Your task to perform on an android device: Open battery settings Image 0: 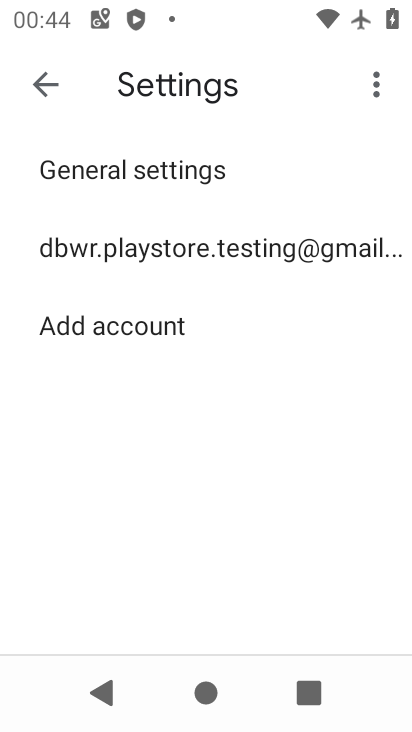
Step 0: drag from (206, 519) to (240, 143)
Your task to perform on an android device: Open battery settings Image 1: 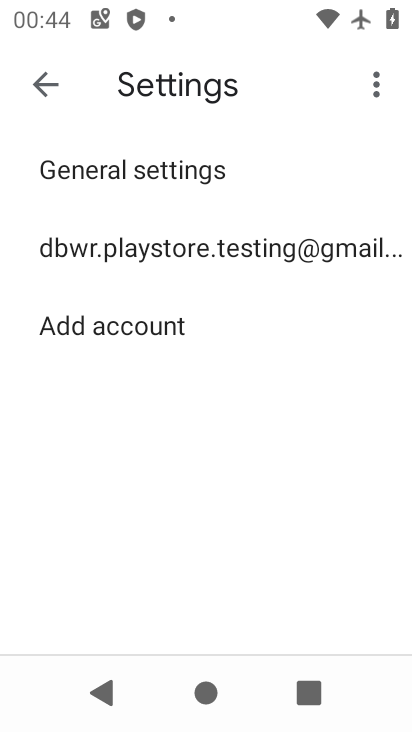
Step 1: drag from (245, 477) to (276, 212)
Your task to perform on an android device: Open battery settings Image 2: 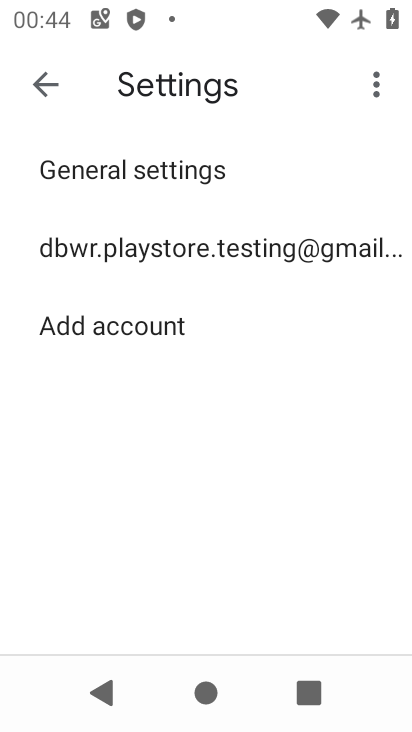
Step 2: click (158, 430)
Your task to perform on an android device: Open battery settings Image 3: 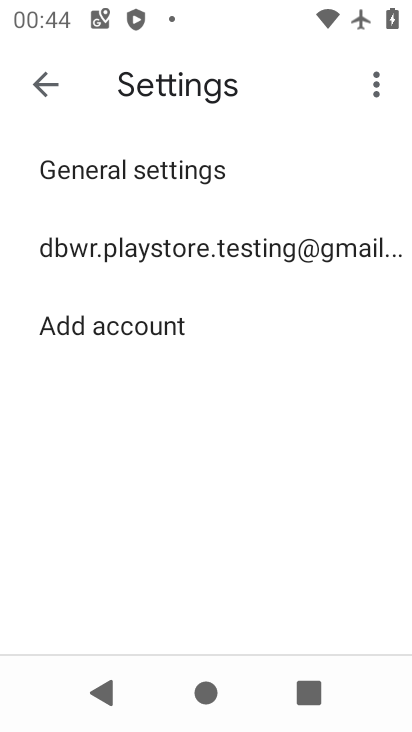
Step 3: click (158, 430)
Your task to perform on an android device: Open battery settings Image 4: 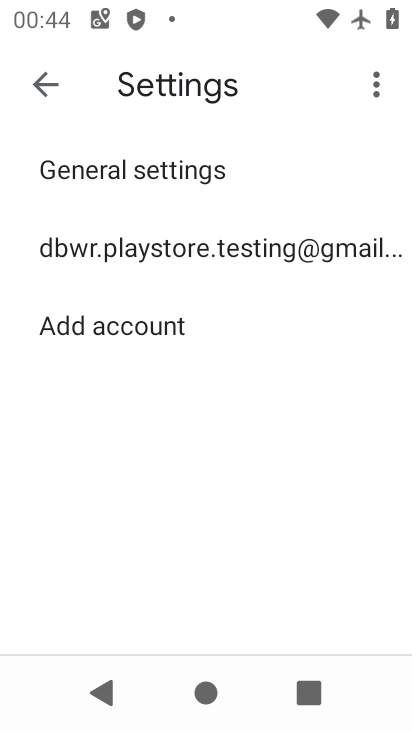
Step 4: press home button
Your task to perform on an android device: Open battery settings Image 5: 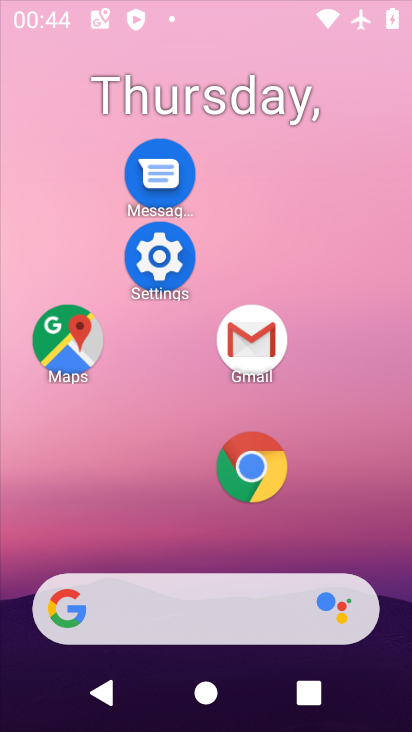
Step 5: drag from (227, 540) to (241, 154)
Your task to perform on an android device: Open battery settings Image 6: 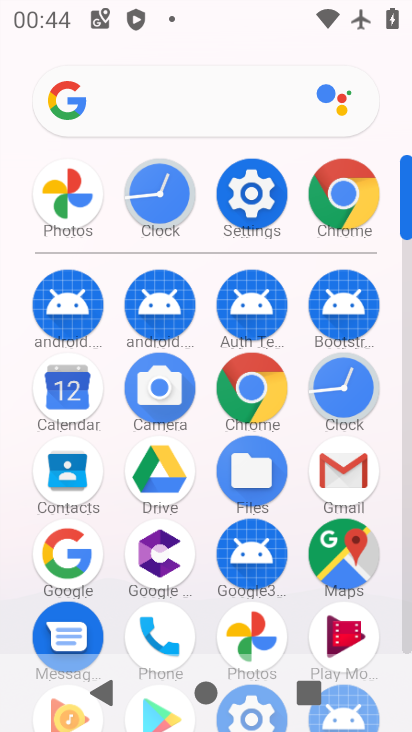
Step 6: drag from (250, 384) to (229, 81)
Your task to perform on an android device: Open battery settings Image 7: 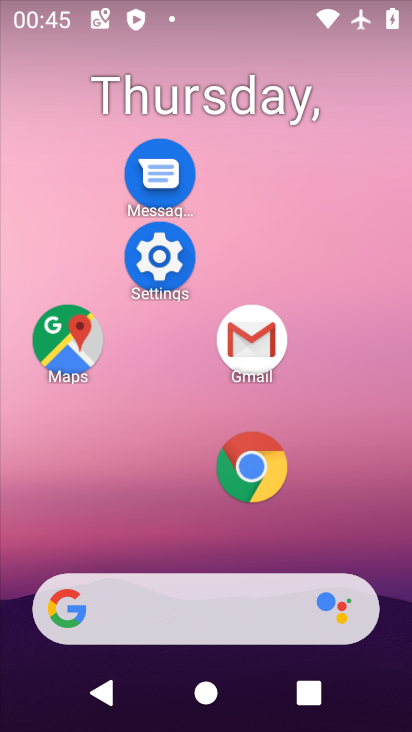
Step 7: drag from (184, 543) to (224, 248)
Your task to perform on an android device: Open battery settings Image 8: 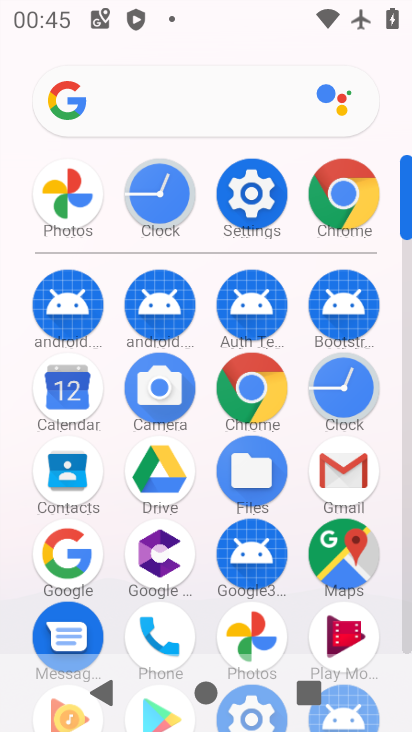
Step 8: click (250, 190)
Your task to perform on an android device: Open battery settings Image 9: 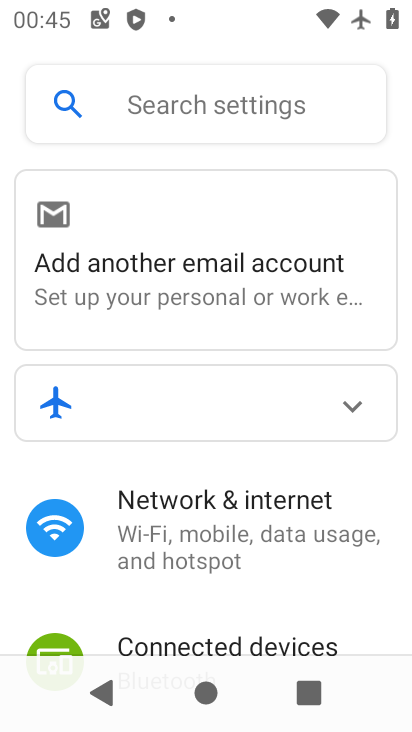
Step 9: drag from (231, 563) to (327, 94)
Your task to perform on an android device: Open battery settings Image 10: 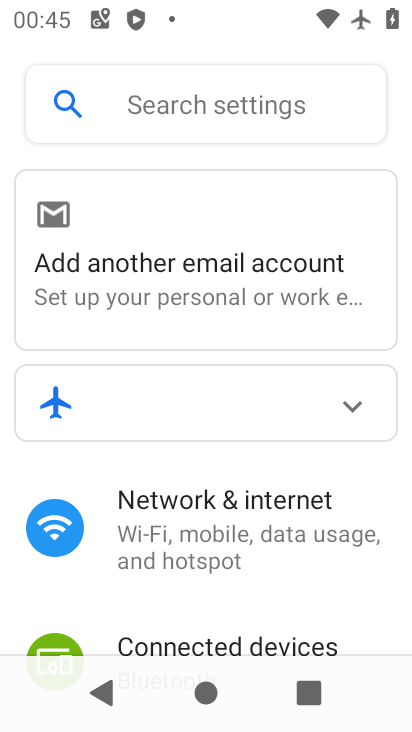
Step 10: click (297, 143)
Your task to perform on an android device: Open battery settings Image 11: 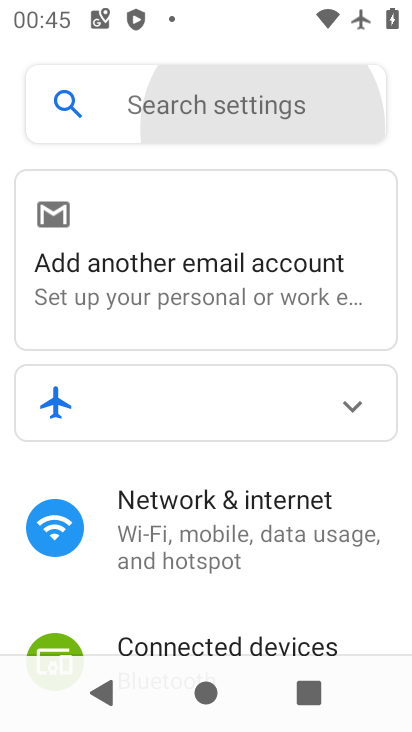
Step 11: drag from (221, 557) to (301, 50)
Your task to perform on an android device: Open battery settings Image 12: 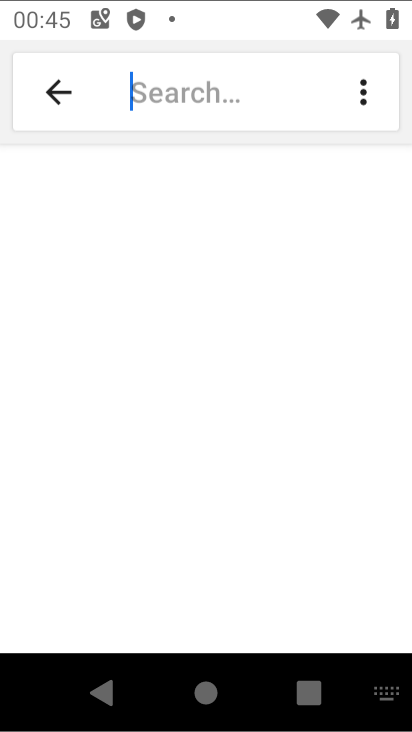
Step 12: drag from (238, 595) to (267, 269)
Your task to perform on an android device: Open battery settings Image 13: 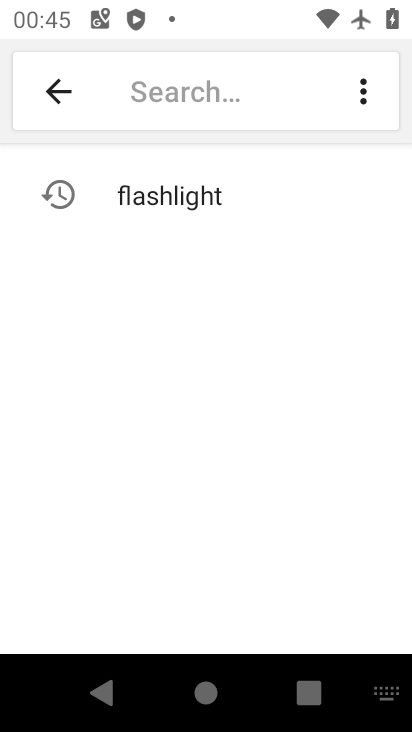
Step 13: click (44, 79)
Your task to perform on an android device: Open battery settings Image 14: 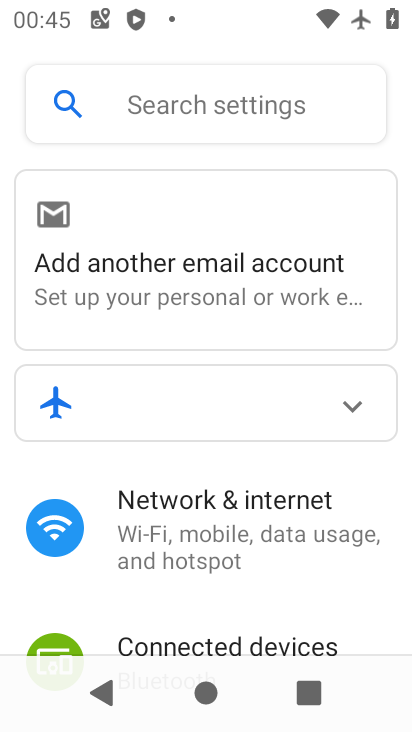
Step 14: drag from (178, 586) to (251, 285)
Your task to perform on an android device: Open battery settings Image 15: 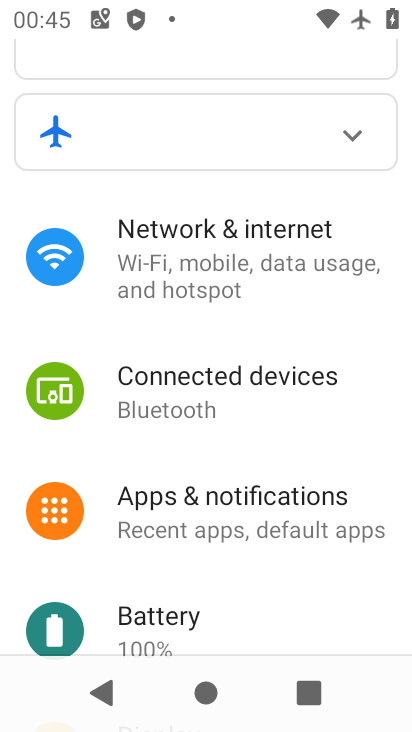
Step 15: drag from (192, 576) to (264, 190)
Your task to perform on an android device: Open battery settings Image 16: 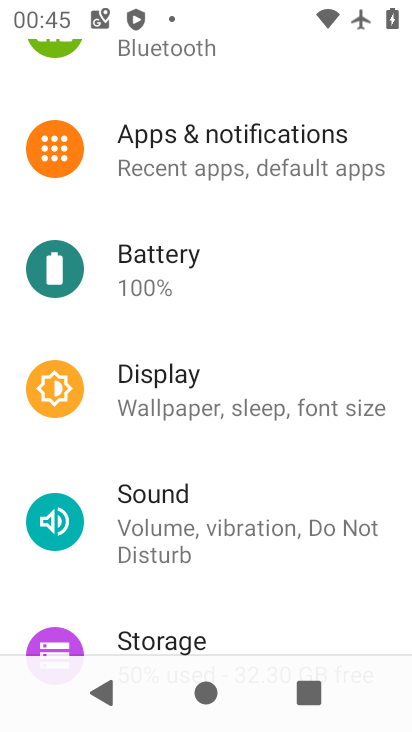
Step 16: click (204, 257)
Your task to perform on an android device: Open battery settings Image 17: 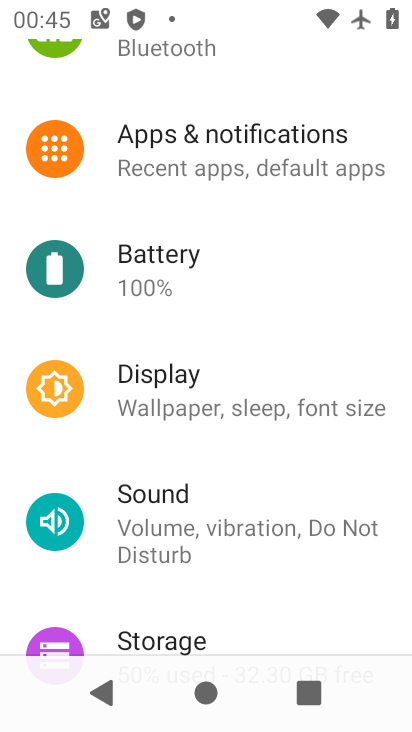
Step 17: click (204, 257)
Your task to perform on an android device: Open battery settings Image 18: 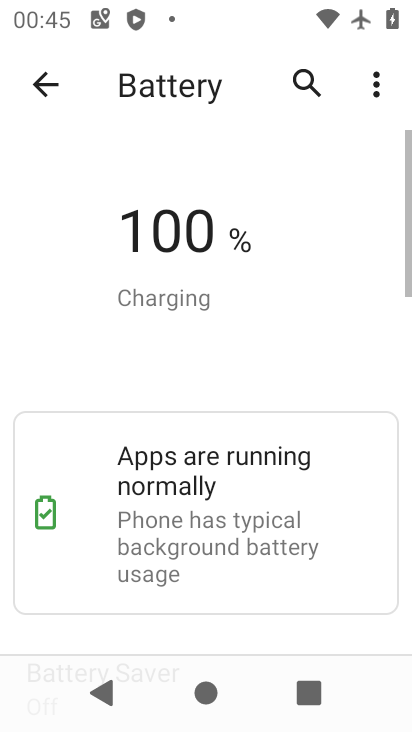
Step 18: task complete